Your task to perform on an android device: move an email to a new category in the gmail app Image 0: 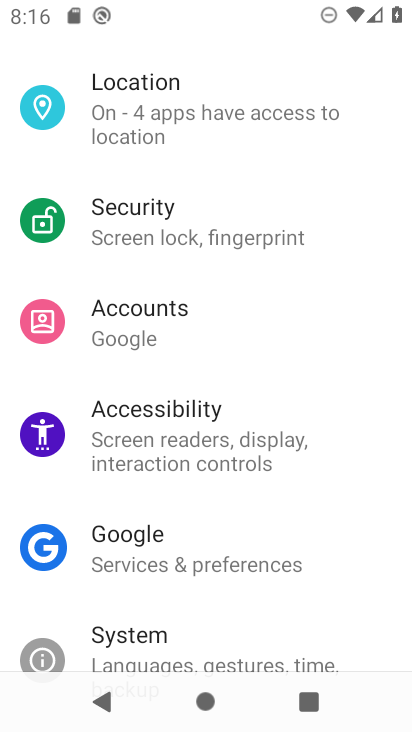
Step 0: press home button
Your task to perform on an android device: move an email to a new category in the gmail app Image 1: 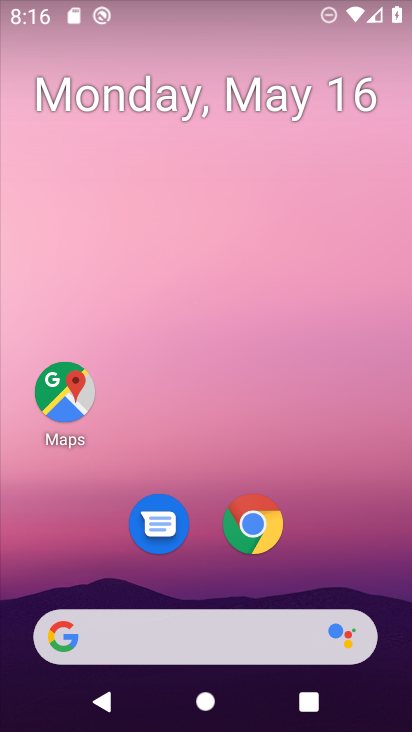
Step 1: drag from (295, 534) to (216, 0)
Your task to perform on an android device: move an email to a new category in the gmail app Image 2: 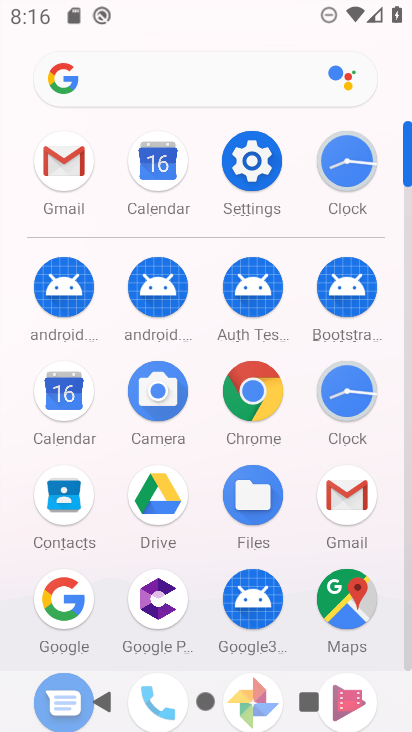
Step 2: click (56, 158)
Your task to perform on an android device: move an email to a new category in the gmail app Image 3: 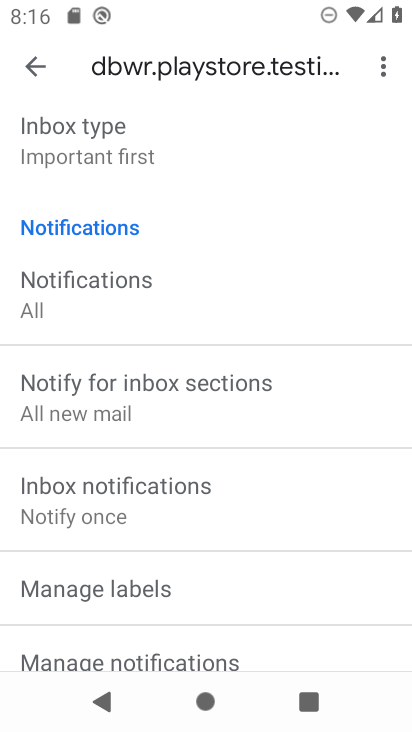
Step 3: click (37, 62)
Your task to perform on an android device: move an email to a new category in the gmail app Image 4: 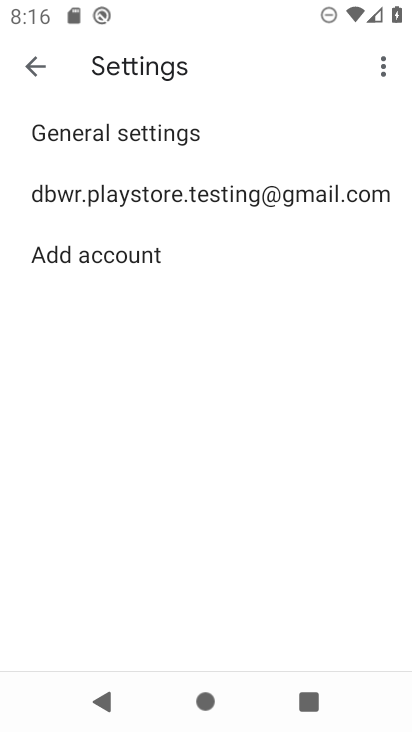
Step 4: click (37, 62)
Your task to perform on an android device: move an email to a new category in the gmail app Image 5: 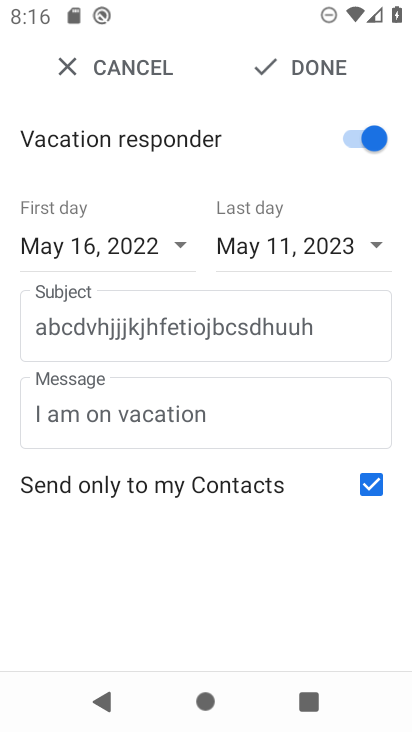
Step 5: click (255, 62)
Your task to perform on an android device: move an email to a new category in the gmail app Image 6: 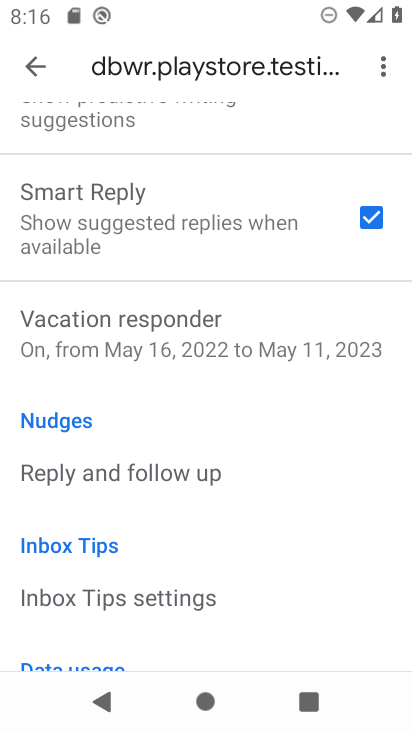
Step 6: click (35, 62)
Your task to perform on an android device: move an email to a new category in the gmail app Image 7: 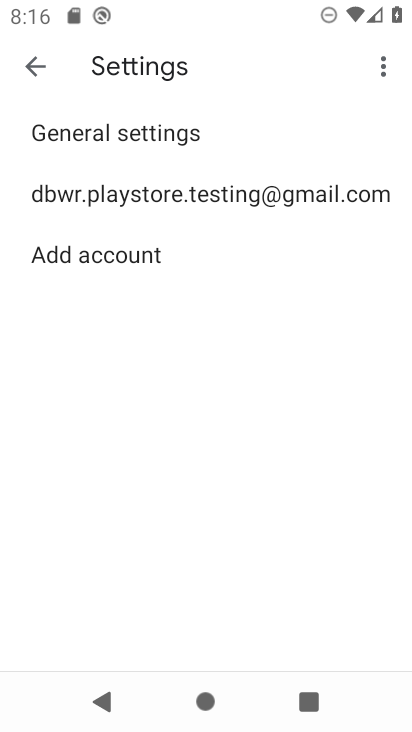
Step 7: click (35, 62)
Your task to perform on an android device: move an email to a new category in the gmail app Image 8: 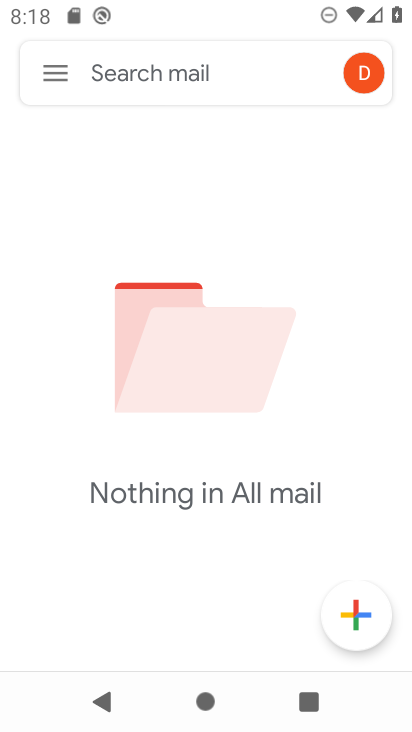
Step 8: task complete